Your task to perform on an android device: search for starred emails in the gmail app Image 0: 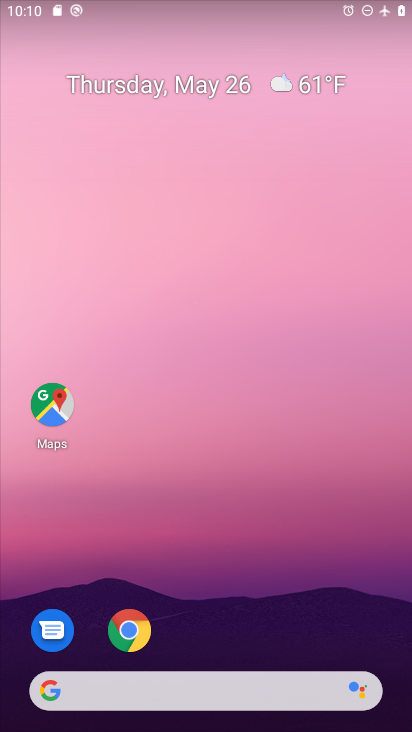
Step 0: drag from (219, 664) to (88, 14)
Your task to perform on an android device: search for starred emails in the gmail app Image 1: 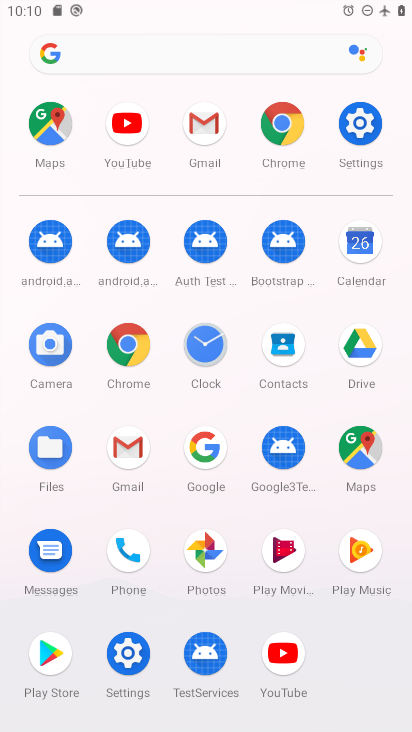
Step 1: click (131, 448)
Your task to perform on an android device: search for starred emails in the gmail app Image 2: 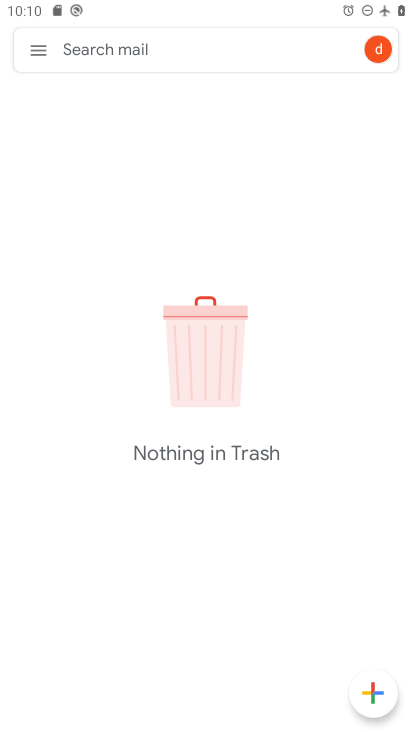
Step 2: click (36, 61)
Your task to perform on an android device: search for starred emails in the gmail app Image 3: 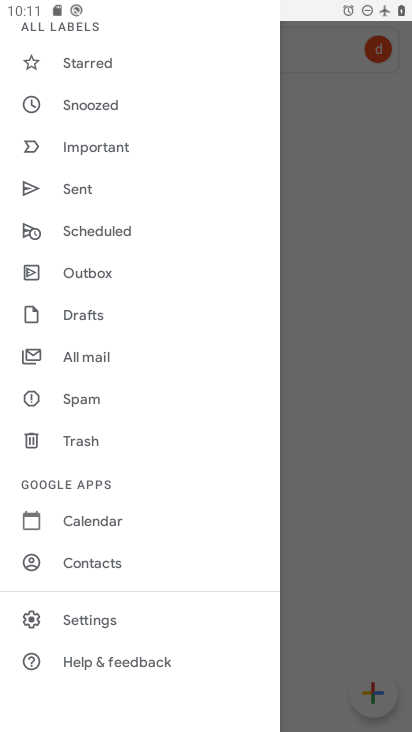
Step 3: click (80, 50)
Your task to perform on an android device: search for starred emails in the gmail app Image 4: 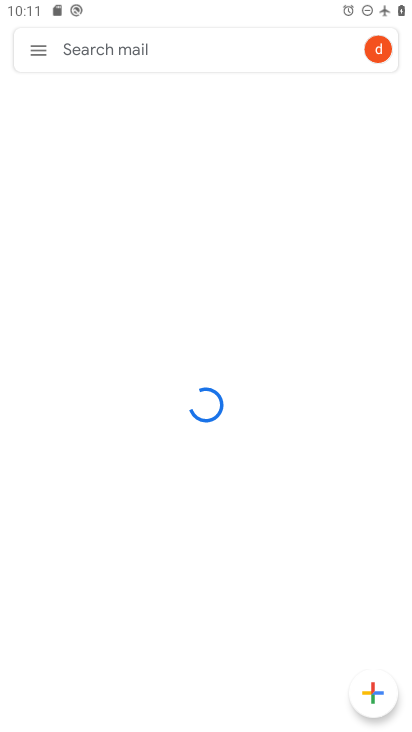
Step 4: task complete